Your task to perform on an android device: check out phone information Image 0: 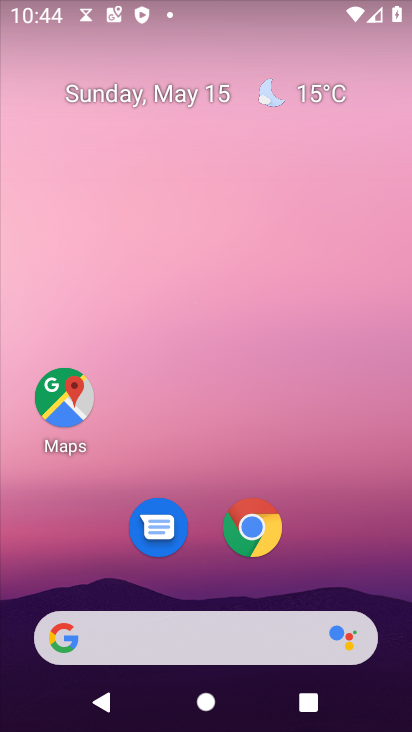
Step 0: drag from (337, 574) to (219, 117)
Your task to perform on an android device: check out phone information Image 1: 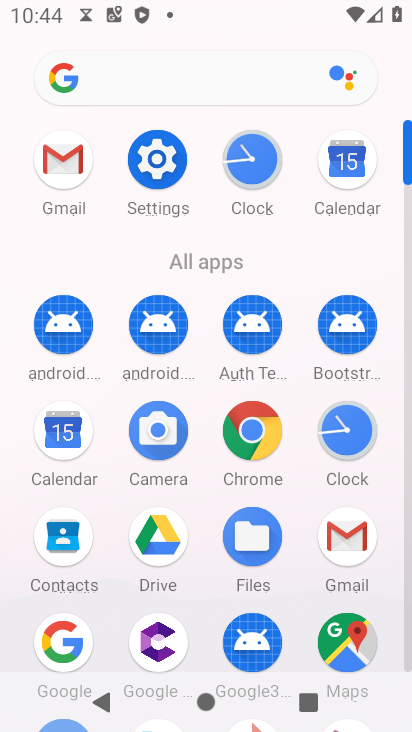
Step 1: click (153, 160)
Your task to perform on an android device: check out phone information Image 2: 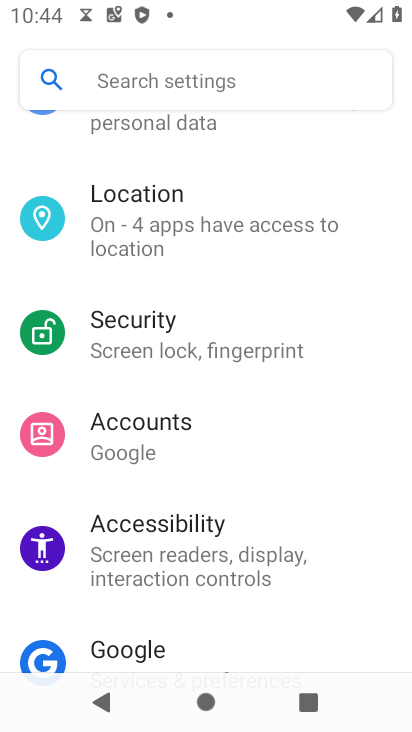
Step 2: drag from (229, 457) to (252, 355)
Your task to perform on an android device: check out phone information Image 3: 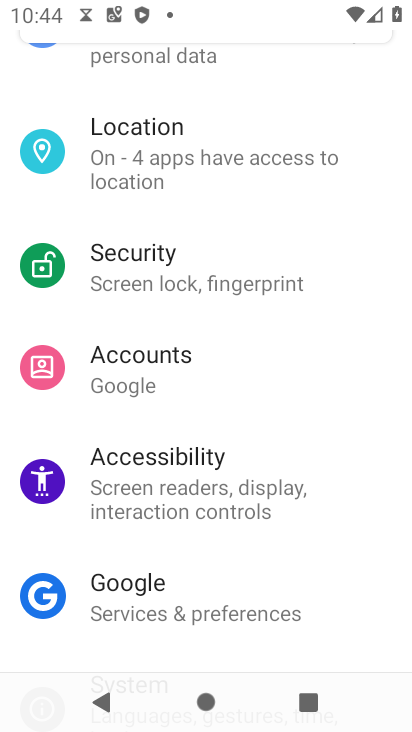
Step 3: drag from (207, 537) to (243, 370)
Your task to perform on an android device: check out phone information Image 4: 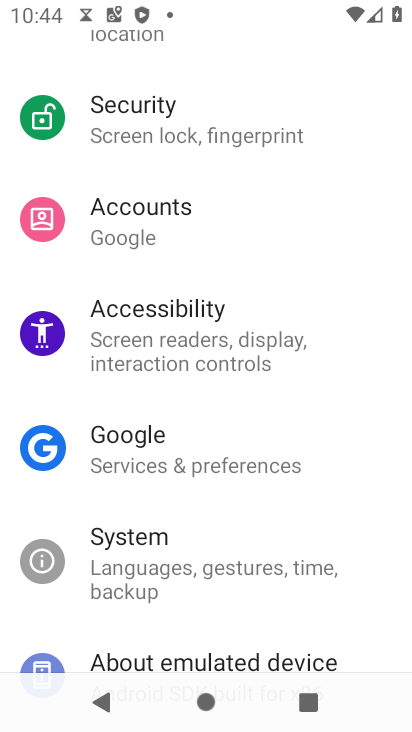
Step 4: drag from (219, 522) to (265, 369)
Your task to perform on an android device: check out phone information Image 5: 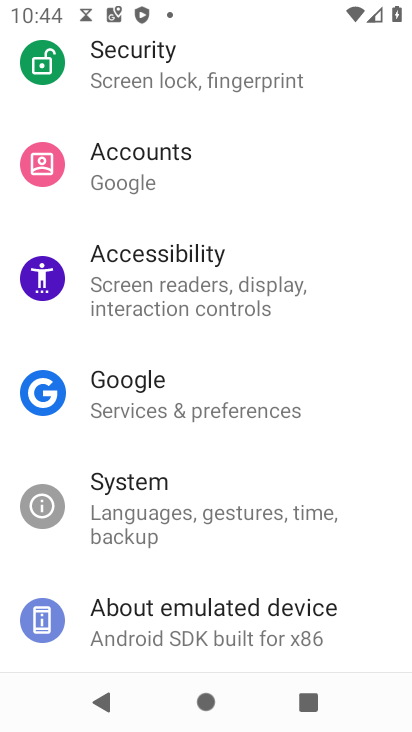
Step 5: click (219, 608)
Your task to perform on an android device: check out phone information Image 6: 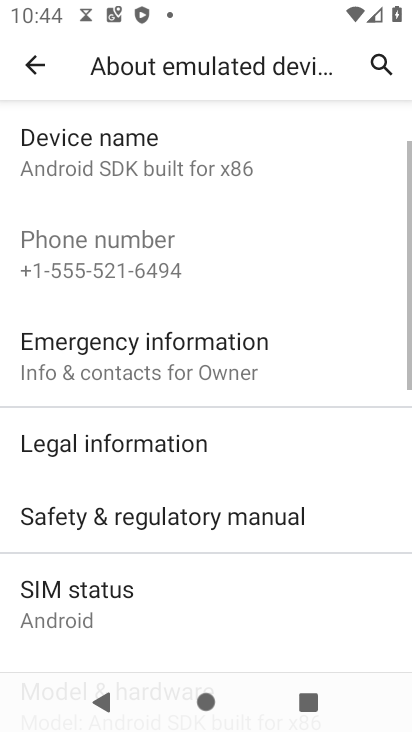
Step 6: task complete